Your task to perform on an android device: visit the assistant section in the google photos Image 0: 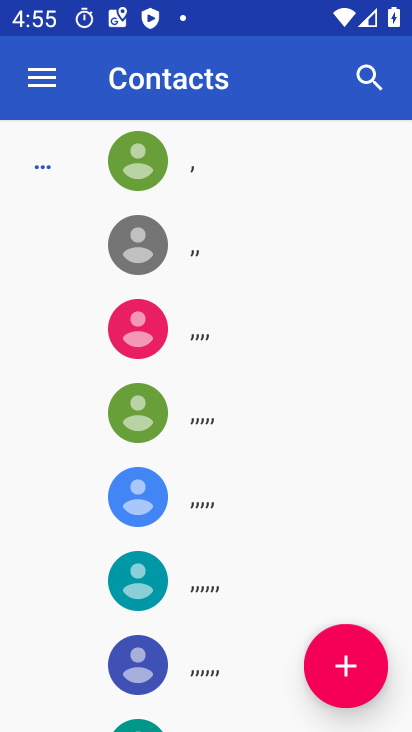
Step 0: press home button
Your task to perform on an android device: visit the assistant section in the google photos Image 1: 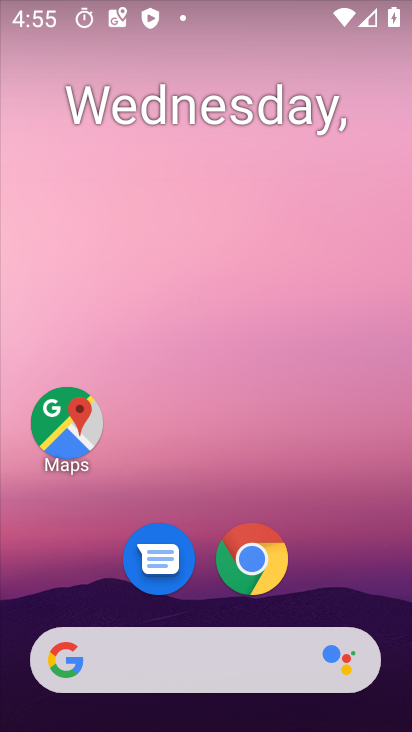
Step 1: drag from (362, 596) to (200, 16)
Your task to perform on an android device: visit the assistant section in the google photos Image 2: 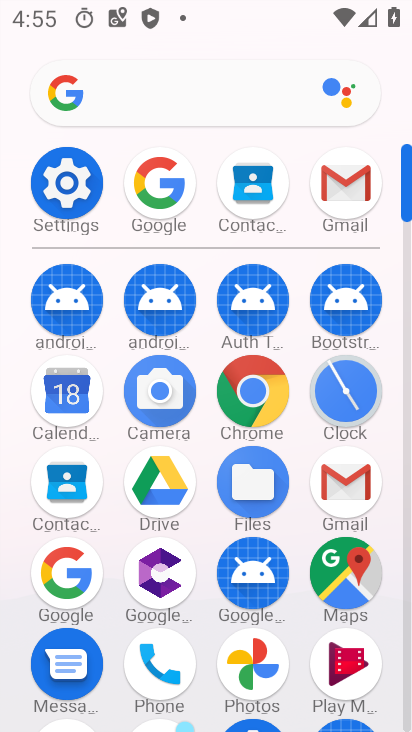
Step 2: click (254, 657)
Your task to perform on an android device: visit the assistant section in the google photos Image 3: 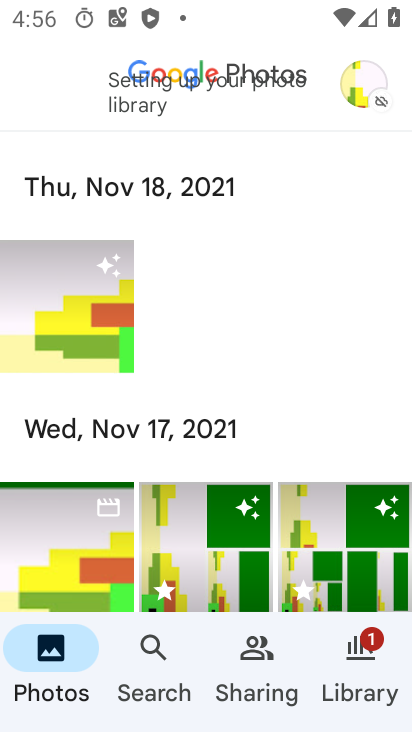
Step 3: click (367, 678)
Your task to perform on an android device: visit the assistant section in the google photos Image 4: 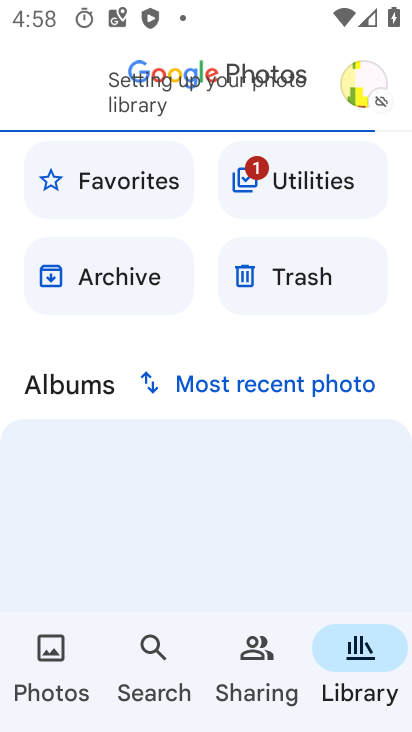
Step 4: task complete